Your task to perform on an android device: What's the weather today? Image 0: 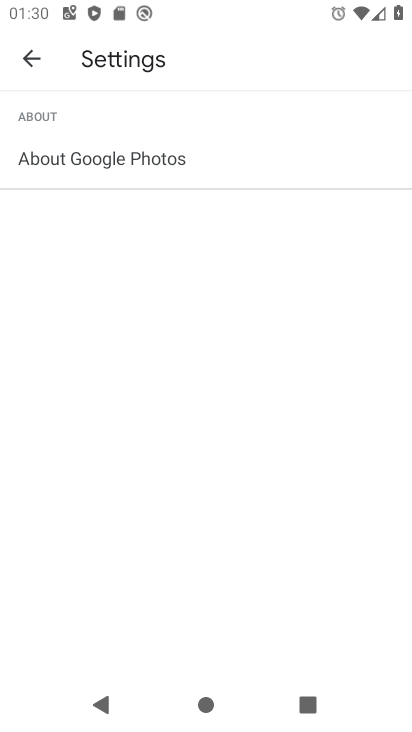
Step 0: press home button
Your task to perform on an android device: What's the weather today? Image 1: 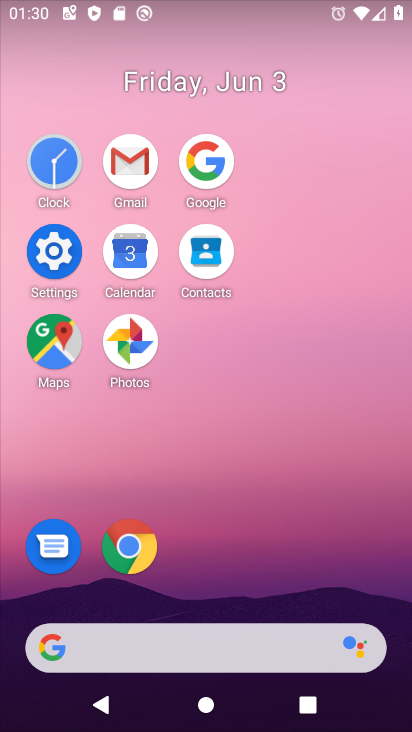
Step 1: click (213, 164)
Your task to perform on an android device: What's the weather today? Image 2: 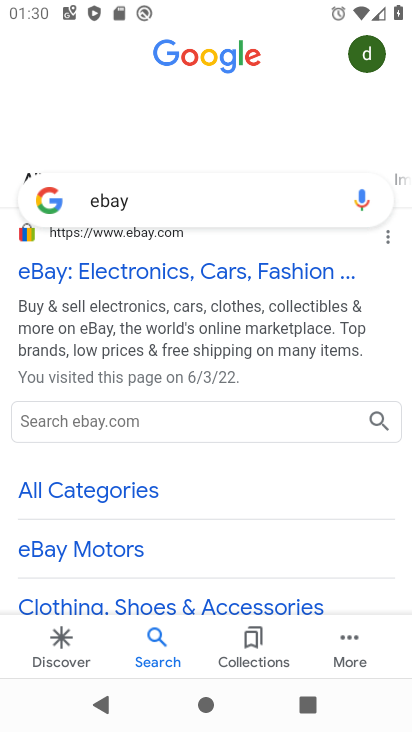
Step 2: drag from (240, 191) to (177, 191)
Your task to perform on an android device: What's the weather today? Image 3: 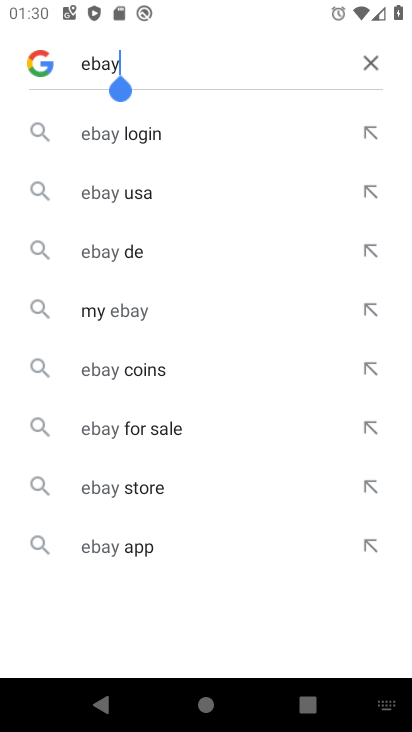
Step 3: click (377, 64)
Your task to perform on an android device: What's the weather today? Image 4: 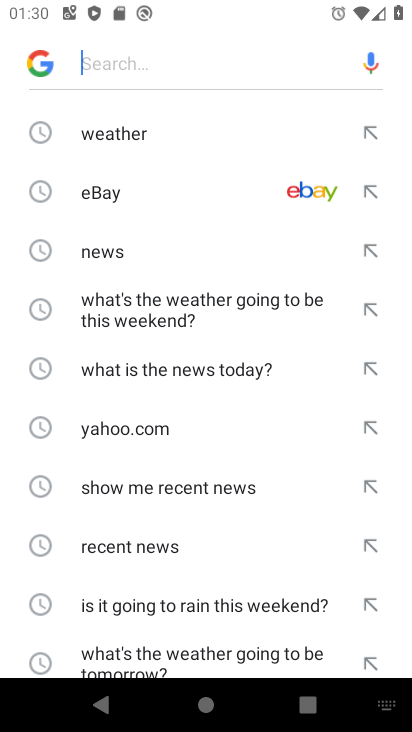
Step 4: click (185, 122)
Your task to perform on an android device: What's the weather today? Image 5: 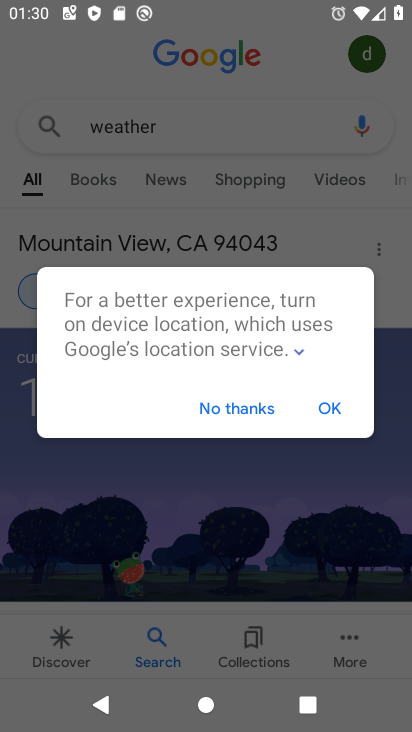
Step 5: task complete